Your task to perform on an android device: Go to eBay Image 0: 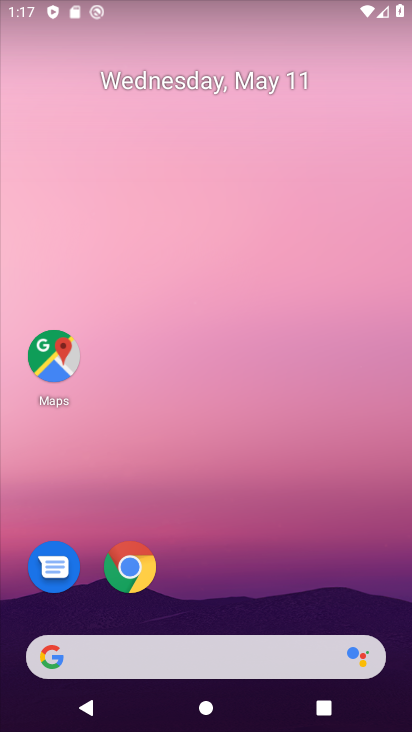
Step 0: click (136, 568)
Your task to perform on an android device: Go to eBay Image 1: 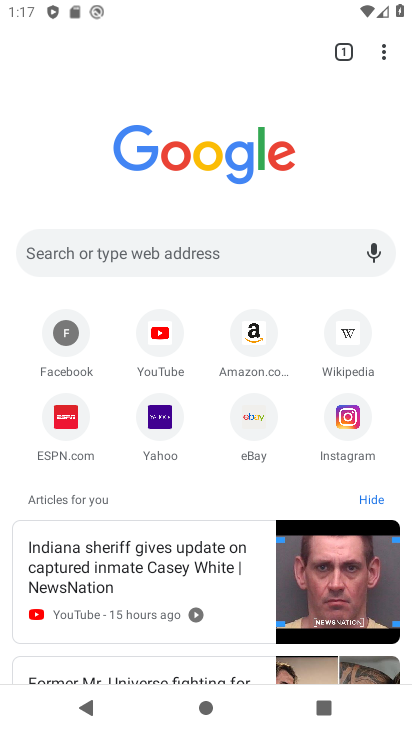
Step 1: click (266, 420)
Your task to perform on an android device: Go to eBay Image 2: 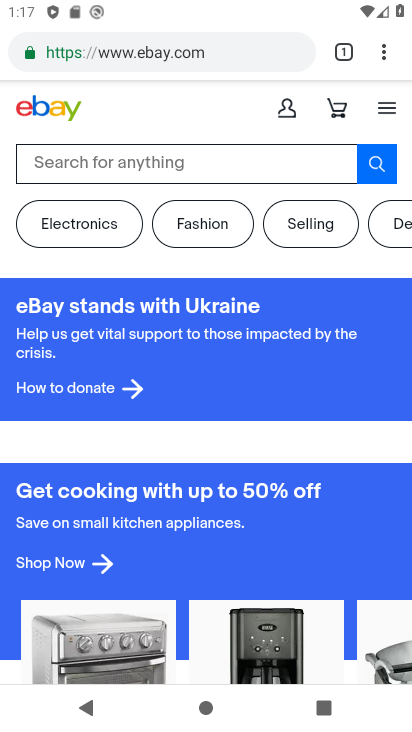
Step 2: task complete